Your task to perform on an android device: turn on data saver in the chrome app Image 0: 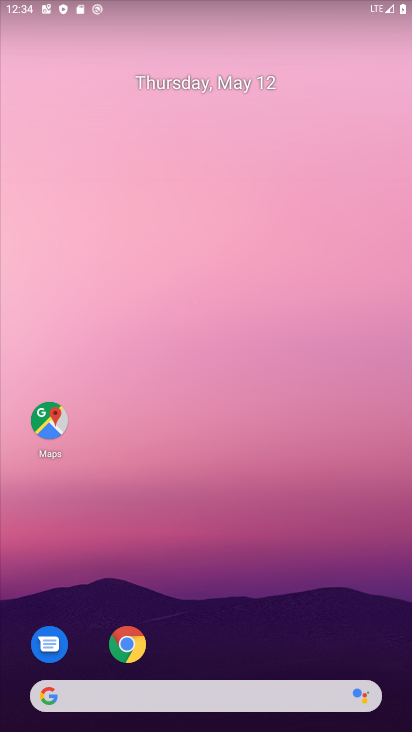
Step 0: click (131, 635)
Your task to perform on an android device: turn on data saver in the chrome app Image 1: 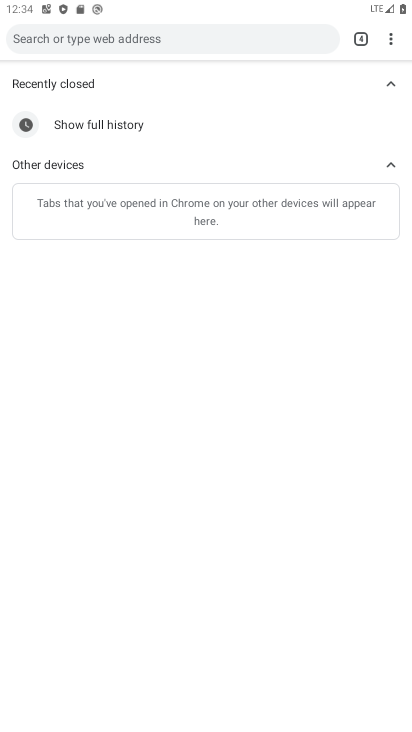
Step 1: click (389, 33)
Your task to perform on an android device: turn on data saver in the chrome app Image 2: 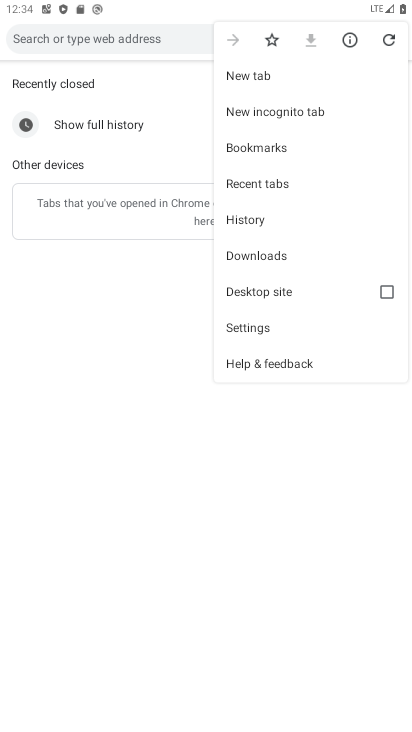
Step 2: click (263, 319)
Your task to perform on an android device: turn on data saver in the chrome app Image 3: 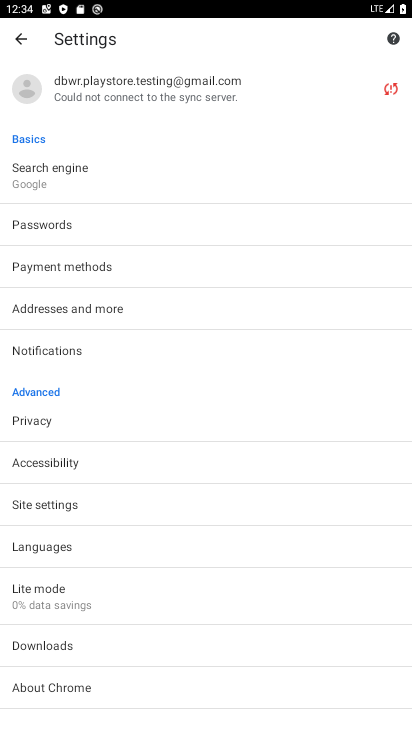
Step 3: click (128, 596)
Your task to perform on an android device: turn on data saver in the chrome app Image 4: 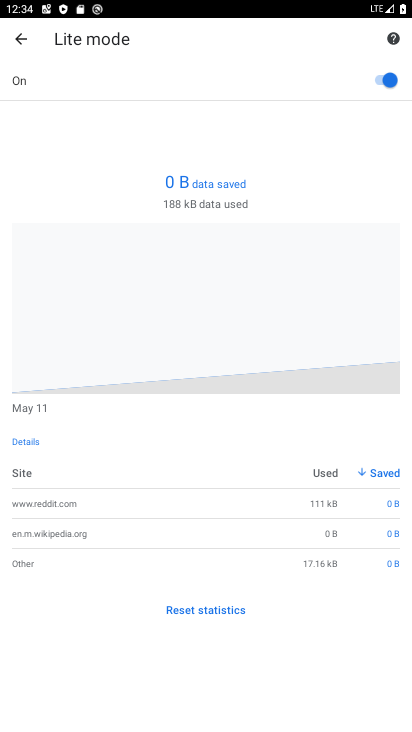
Step 4: task complete